Your task to perform on an android device: allow cookies in the chrome app Image 0: 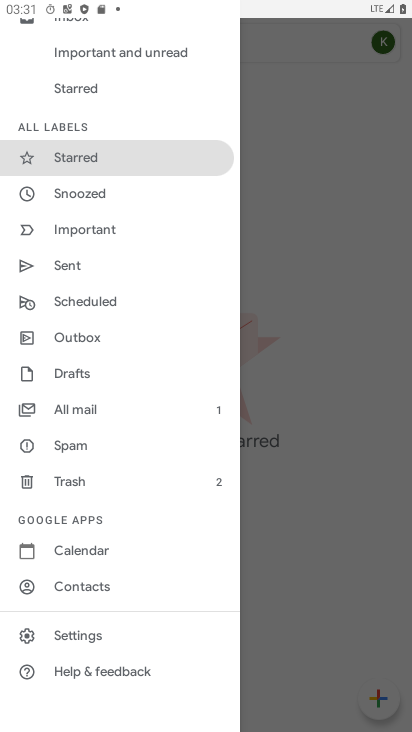
Step 0: press home button
Your task to perform on an android device: allow cookies in the chrome app Image 1: 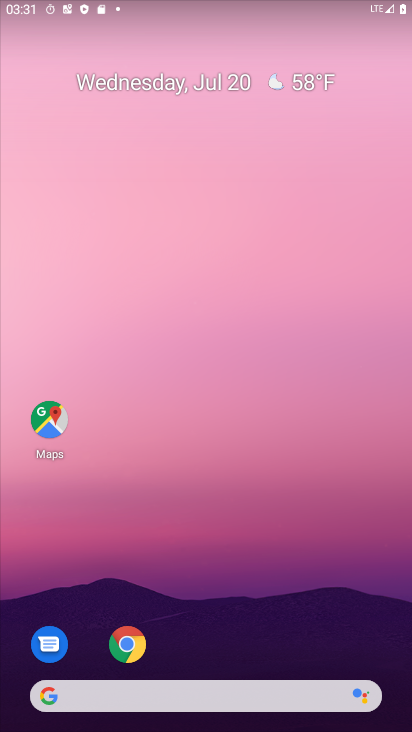
Step 1: click (141, 652)
Your task to perform on an android device: allow cookies in the chrome app Image 2: 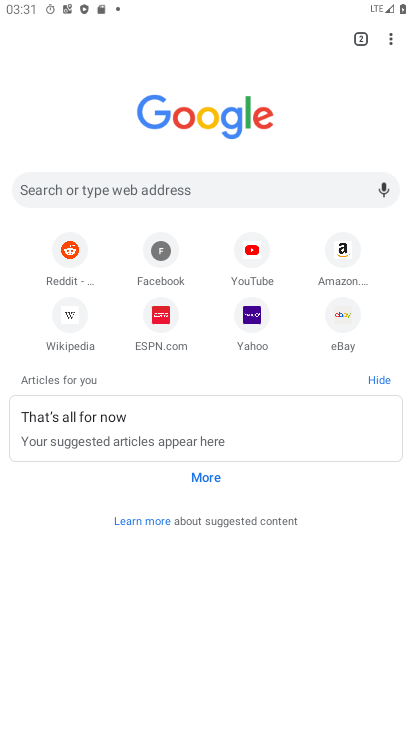
Step 2: click (388, 45)
Your task to perform on an android device: allow cookies in the chrome app Image 3: 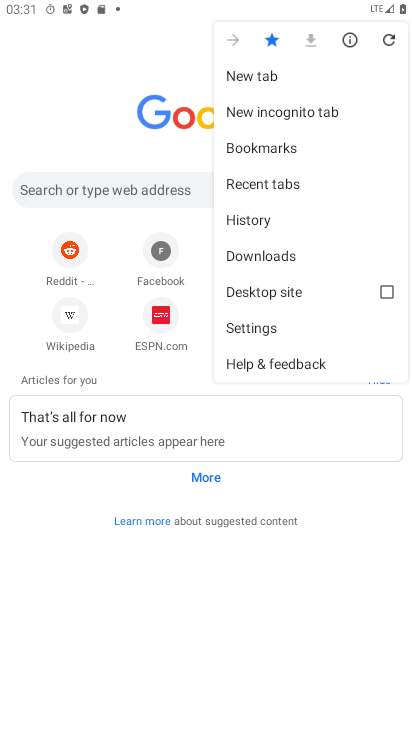
Step 3: click (257, 326)
Your task to perform on an android device: allow cookies in the chrome app Image 4: 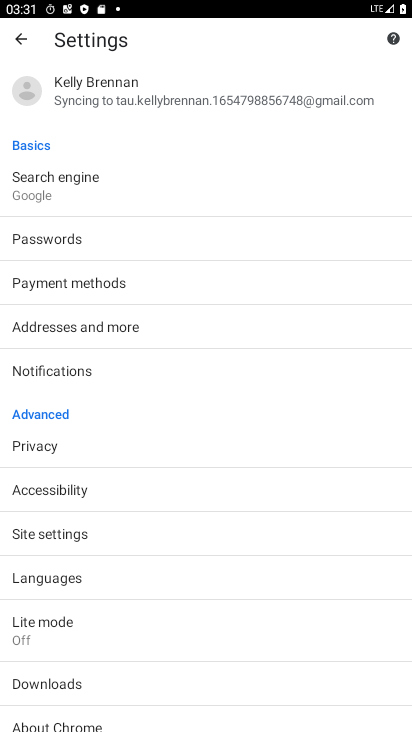
Step 4: click (58, 529)
Your task to perform on an android device: allow cookies in the chrome app Image 5: 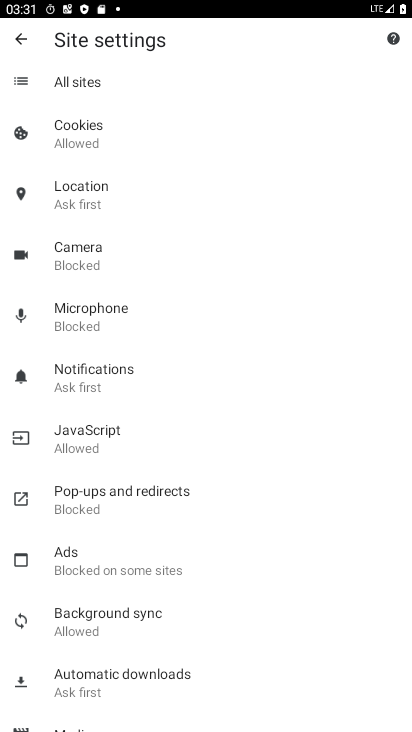
Step 5: click (116, 146)
Your task to perform on an android device: allow cookies in the chrome app Image 6: 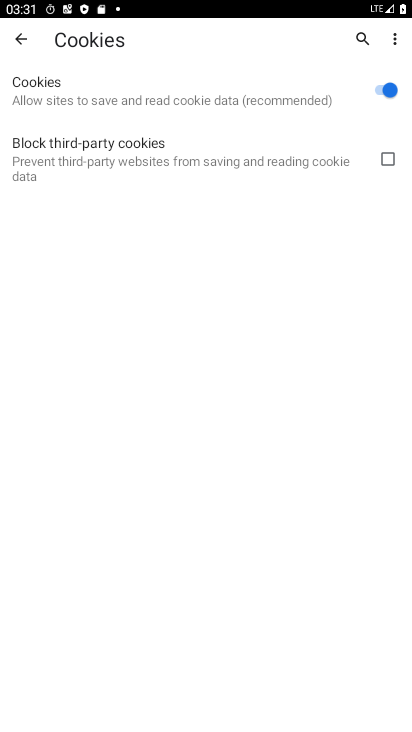
Step 6: task complete